Your task to perform on an android device: turn notification dots off Image 0: 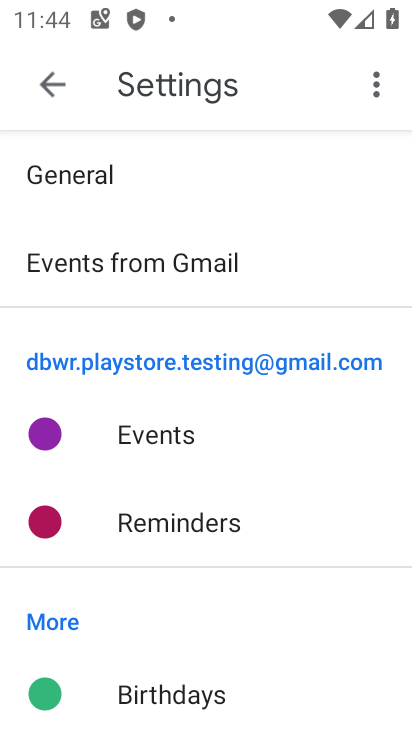
Step 0: press home button
Your task to perform on an android device: turn notification dots off Image 1: 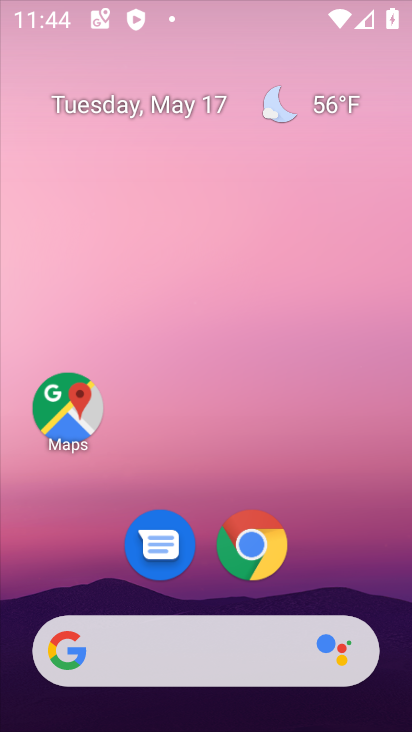
Step 1: drag from (187, 678) to (299, 103)
Your task to perform on an android device: turn notification dots off Image 2: 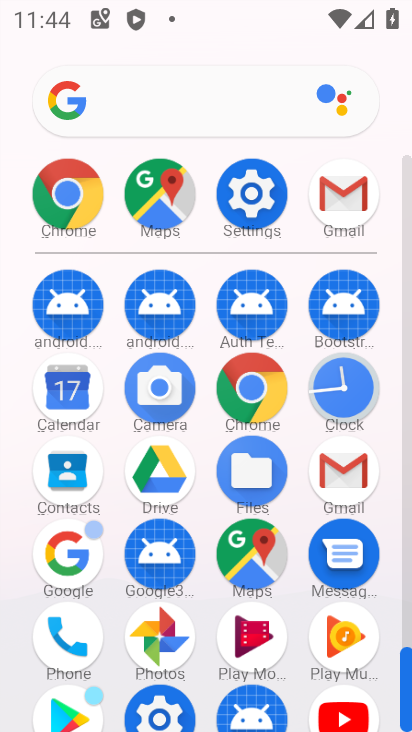
Step 2: click (264, 199)
Your task to perform on an android device: turn notification dots off Image 3: 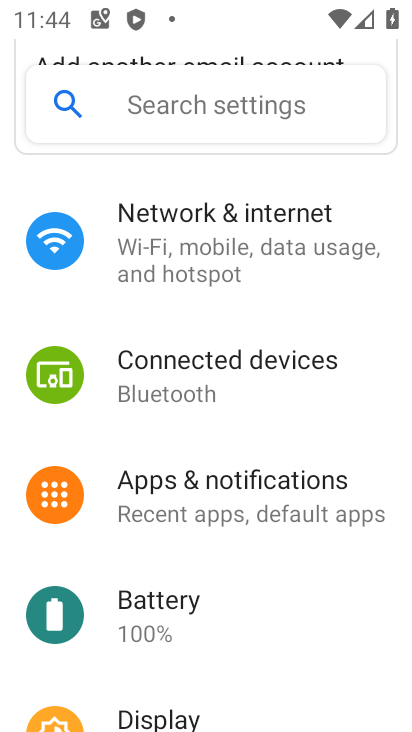
Step 3: click (239, 497)
Your task to perform on an android device: turn notification dots off Image 4: 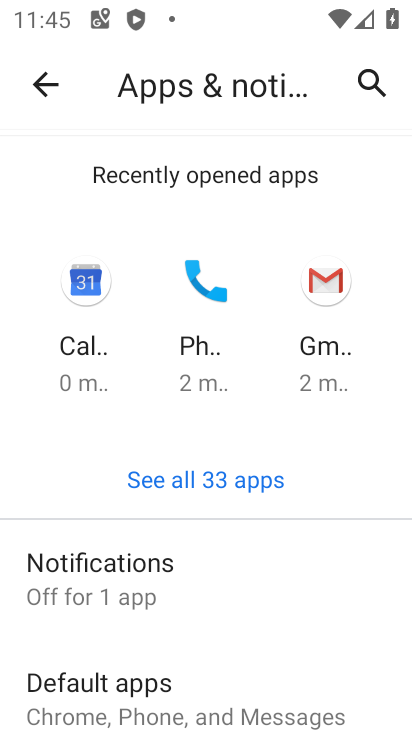
Step 4: drag from (176, 567) to (290, 228)
Your task to perform on an android device: turn notification dots off Image 5: 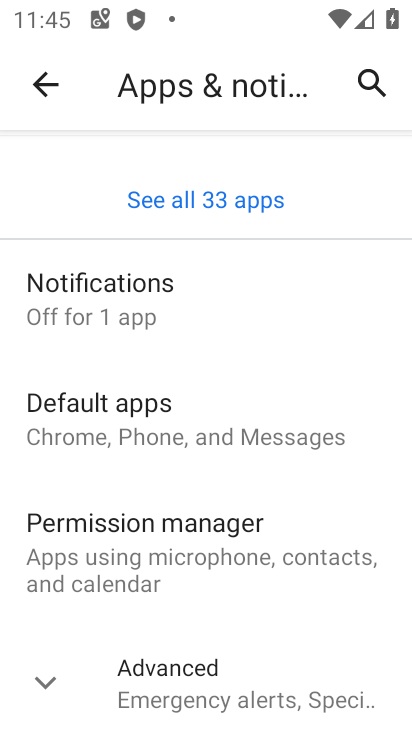
Step 5: click (189, 290)
Your task to perform on an android device: turn notification dots off Image 6: 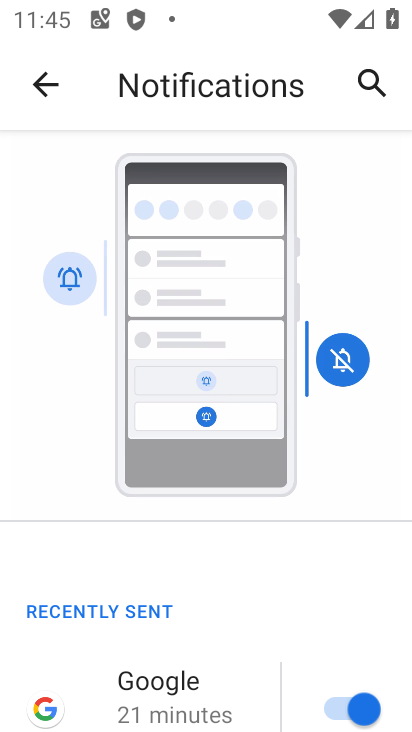
Step 6: drag from (186, 560) to (293, 191)
Your task to perform on an android device: turn notification dots off Image 7: 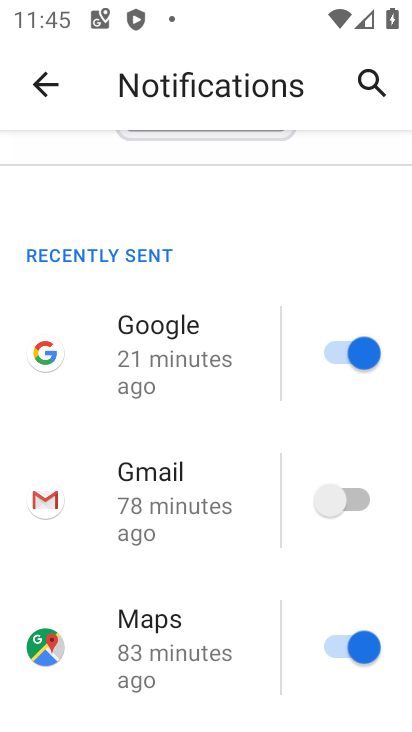
Step 7: drag from (163, 612) to (280, 120)
Your task to perform on an android device: turn notification dots off Image 8: 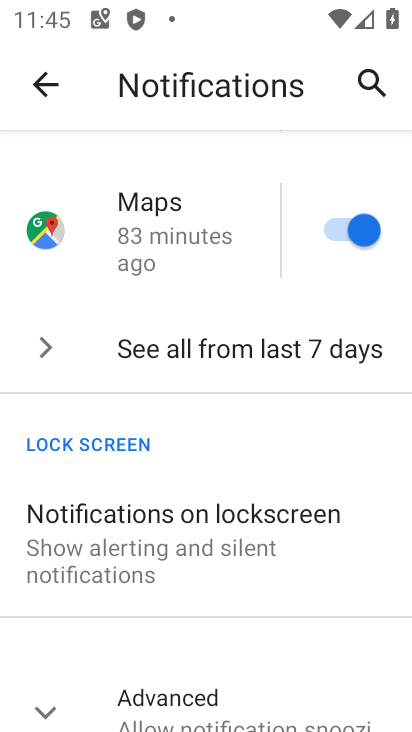
Step 8: drag from (196, 508) to (249, 243)
Your task to perform on an android device: turn notification dots off Image 9: 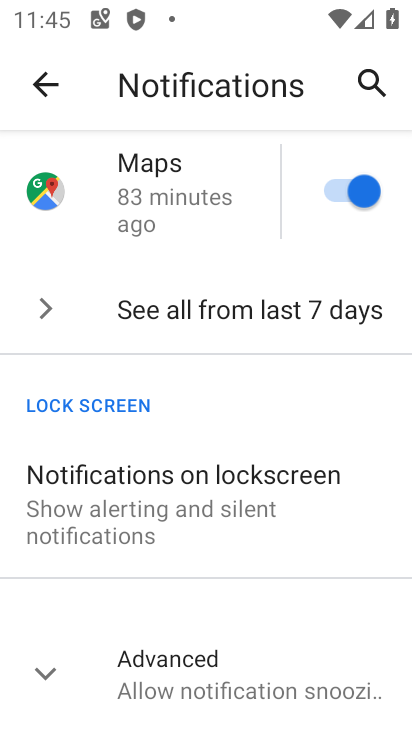
Step 9: click (211, 666)
Your task to perform on an android device: turn notification dots off Image 10: 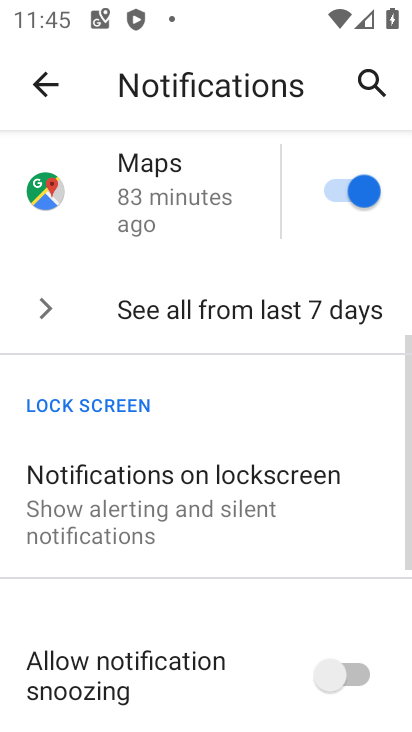
Step 10: drag from (223, 581) to (272, 352)
Your task to perform on an android device: turn notification dots off Image 11: 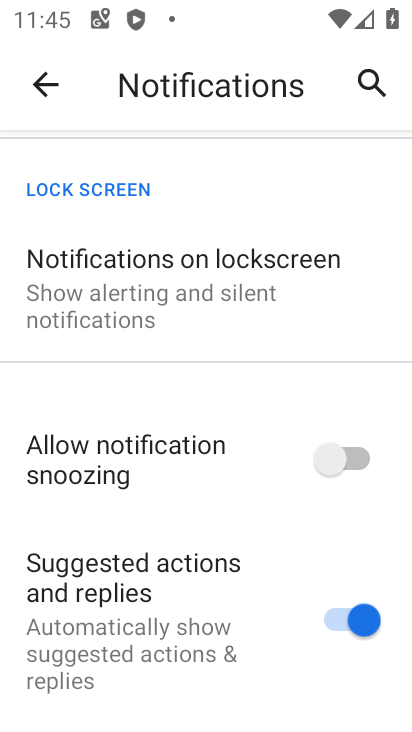
Step 11: drag from (172, 619) to (236, 347)
Your task to perform on an android device: turn notification dots off Image 12: 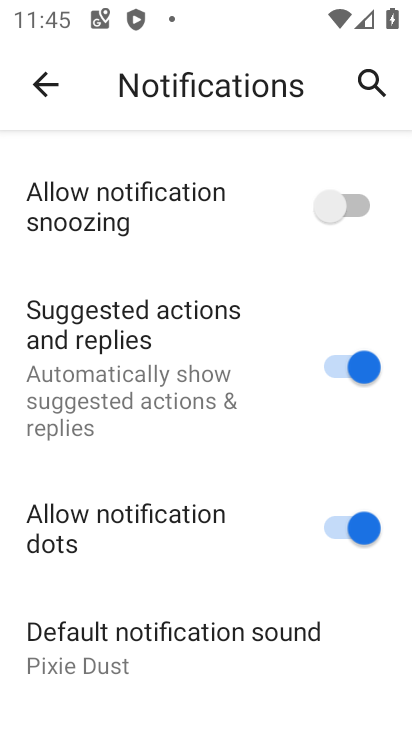
Step 12: click (322, 529)
Your task to perform on an android device: turn notification dots off Image 13: 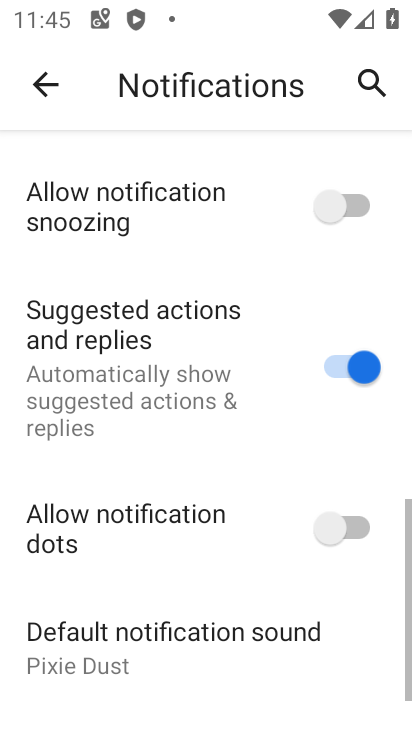
Step 13: task complete